Your task to perform on an android device: Open internet settings Image 0: 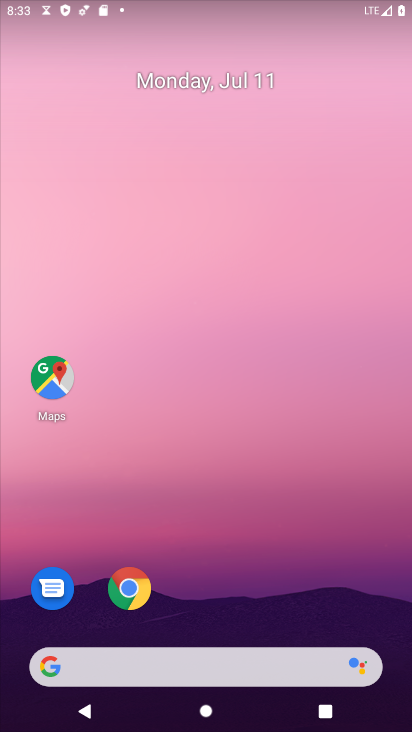
Step 0: press home button
Your task to perform on an android device: Open internet settings Image 1: 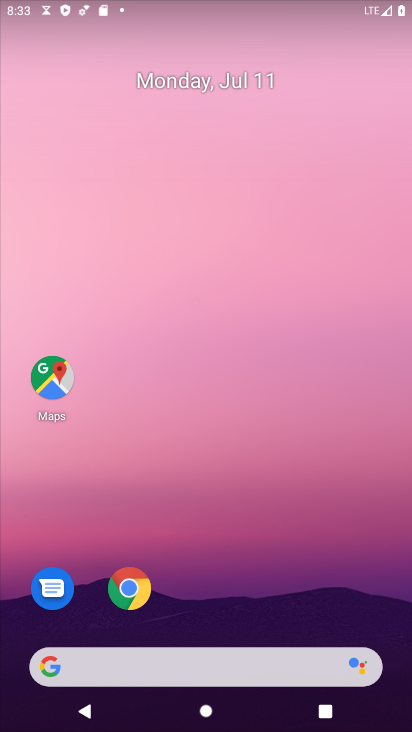
Step 1: drag from (247, 405) to (210, 12)
Your task to perform on an android device: Open internet settings Image 2: 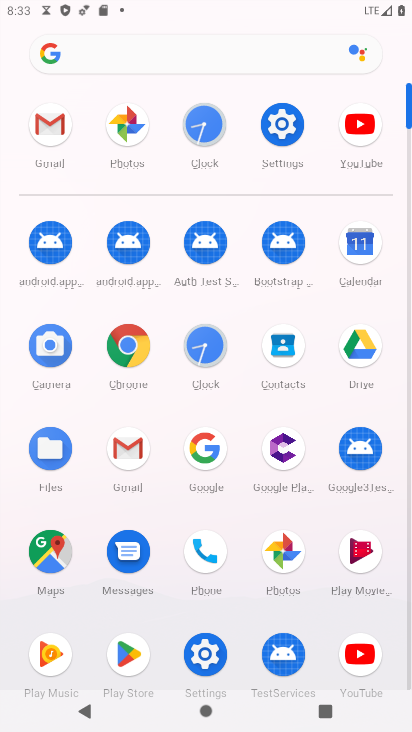
Step 2: click (277, 122)
Your task to perform on an android device: Open internet settings Image 3: 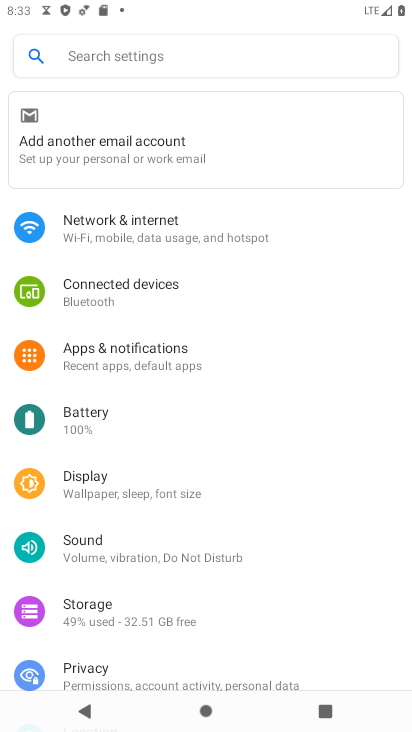
Step 3: click (142, 224)
Your task to perform on an android device: Open internet settings Image 4: 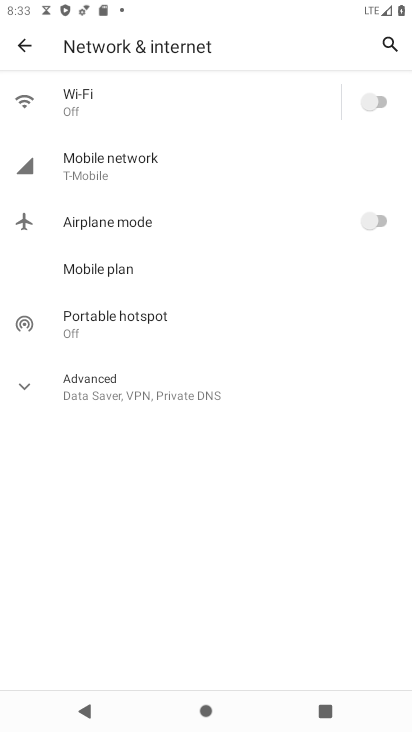
Step 4: task complete